Your task to perform on an android device: Search for jbl flip 4 on ebay.com, select the first entry, add it to the cart, then select checkout. Image 0: 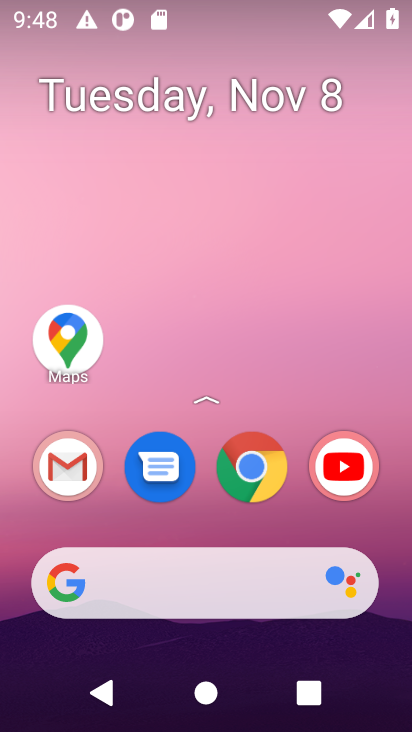
Step 0: click (234, 601)
Your task to perform on an android device: Search for jbl flip 4 on ebay.com, select the first entry, add it to the cart, then select checkout. Image 1: 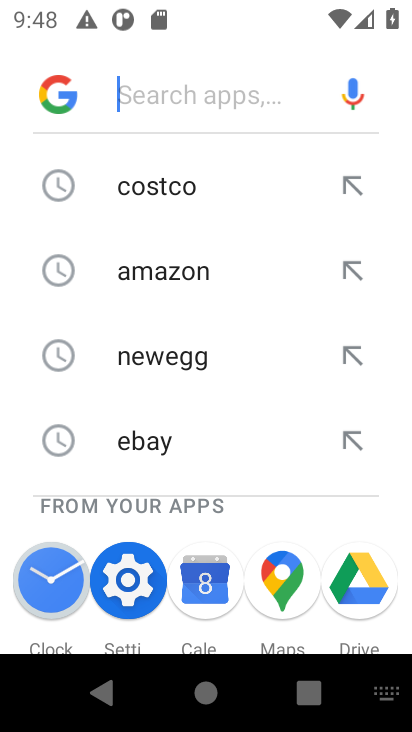
Step 1: type "jbl flip 4"
Your task to perform on an android device: Search for jbl flip 4 on ebay.com, select the first entry, add it to the cart, then select checkout. Image 2: 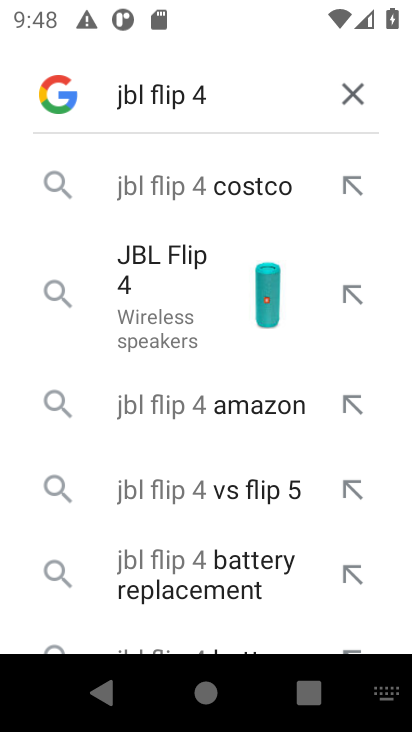
Step 2: click (209, 210)
Your task to perform on an android device: Search for jbl flip 4 on ebay.com, select the first entry, add it to the cart, then select checkout. Image 3: 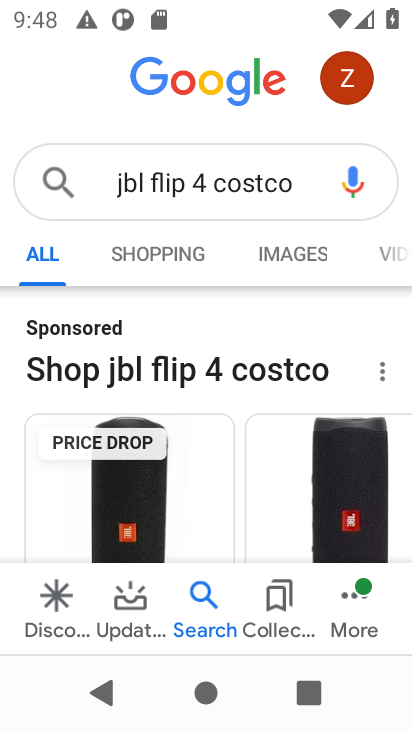
Step 3: task complete